Your task to perform on an android device: Is it going to rain today? Image 0: 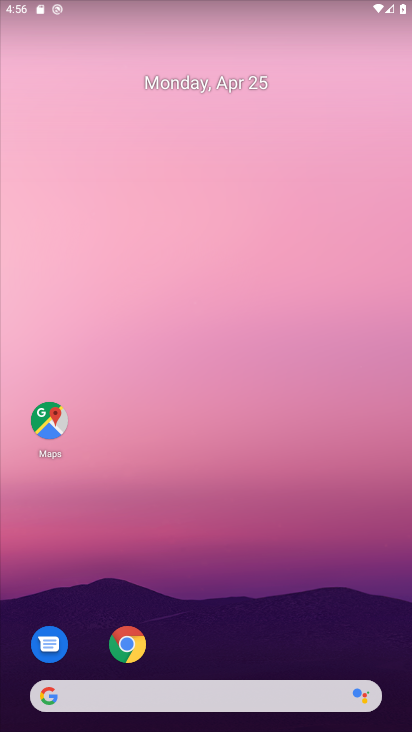
Step 0: drag from (251, 575) to (230, 42)
Your task to perform on an android device: Is it going to rain today? Image 1: 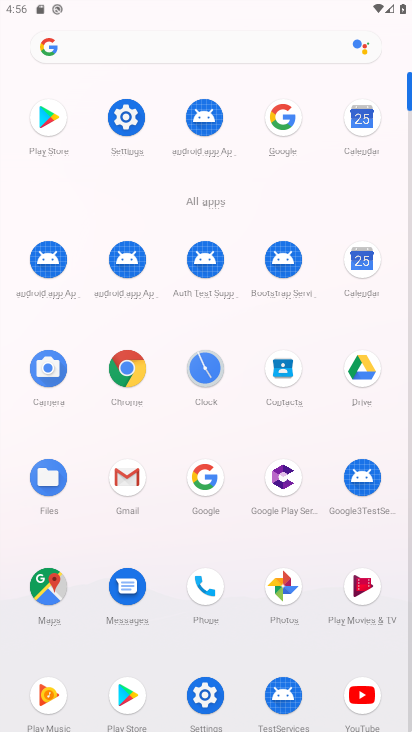
Step 1: click (210, 478)
Your task to perform on an android device: Is it going to rain today? Image 2: 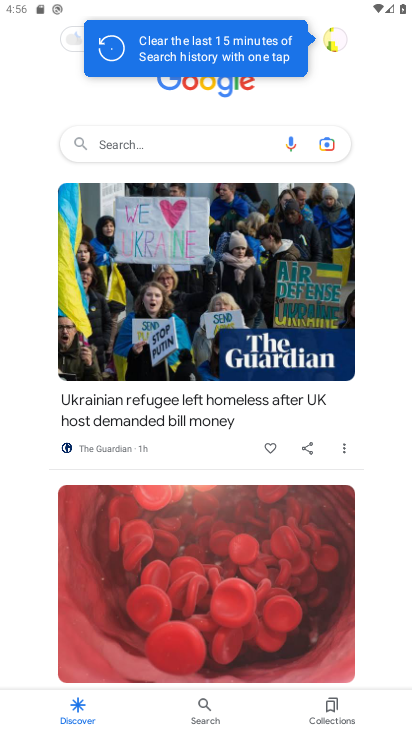
Step 2: click (204, 148)
Your task to perform on an android device: Is it going to rain today? Image 3: 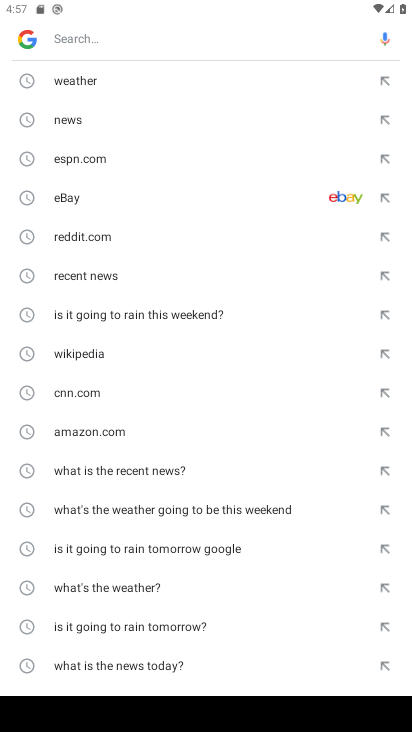
Step 3: click (98, 79)
Your task to perform on an android device: Is it going to rain today? Image 4: 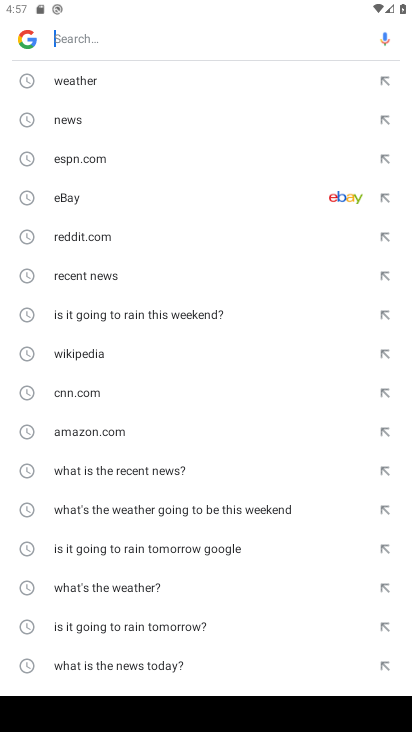
Step 4: click (137, 86)
Your task to perform on an android device: Is it going to rain today? Image 5: 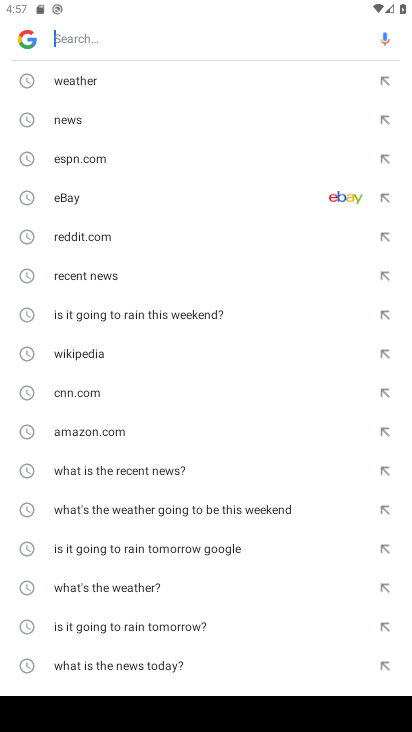
Step 5: click (76, 82)
Your task to perform on an android device: Is it going to rain today? Image 6: 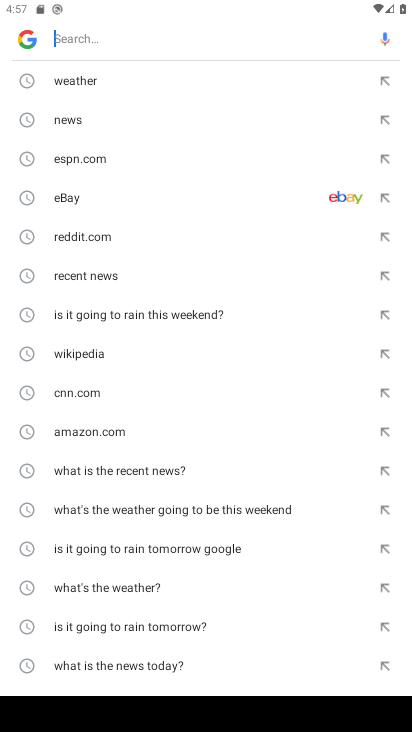
Step 6: click (76, 74)
Your task to perform on an android device: Is it going to rain today? Image 7: 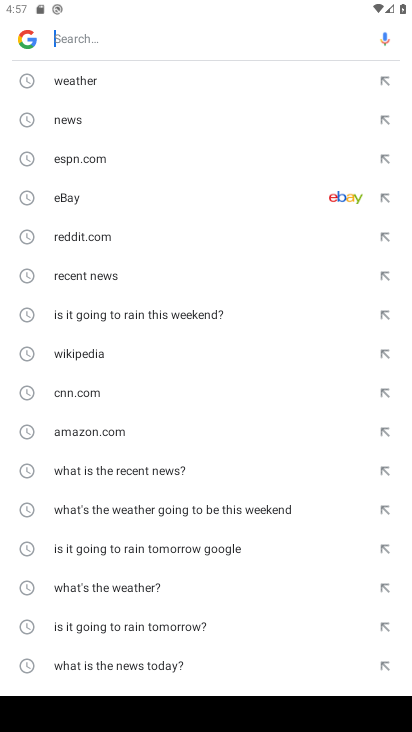
Step 7: click (76, 74)
Your task to perform on an android device: Is it going to rain today? Image 8: 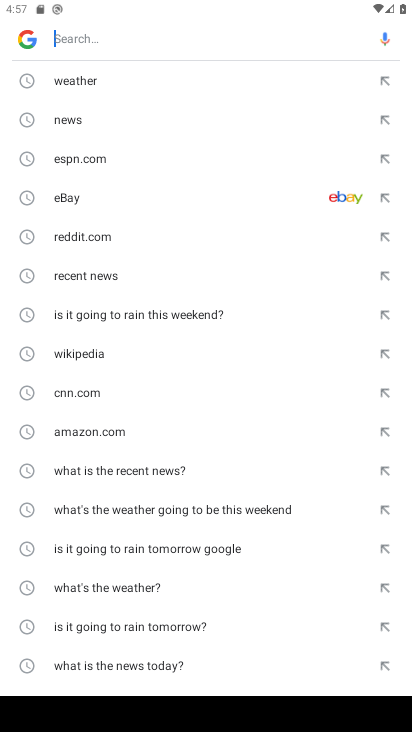
Step 8: type "Is it going to rain today?"
Your task to perform on an android device: Is it going to rain today? Image 9: 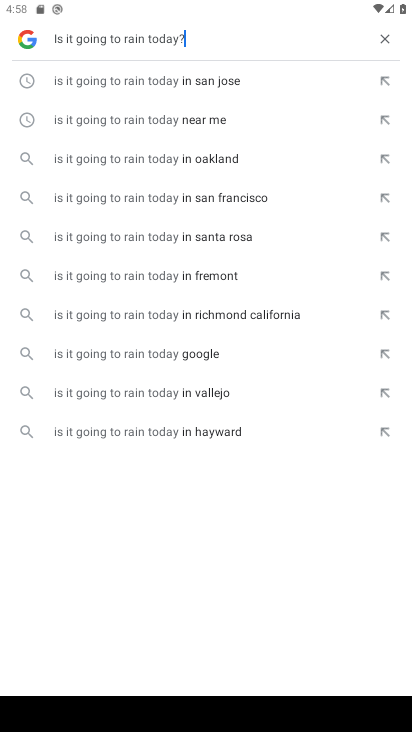
Step 9: click (200, 355)
Your task to perform on an android device: Is it going to rain today? Image 10: 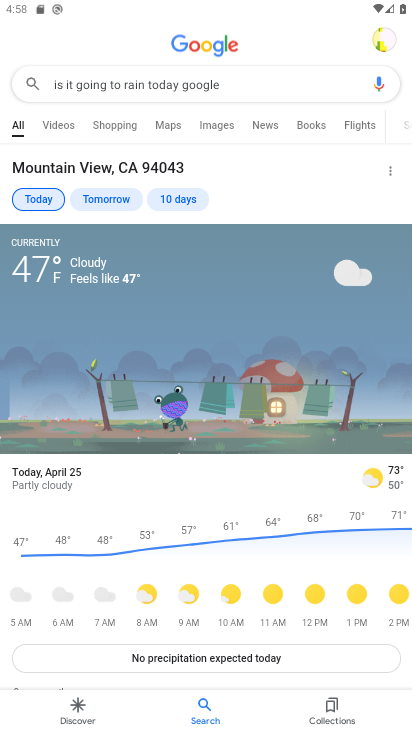
Step 10: task complete